Your task to perform on an android device: change notifications settings Image 0: 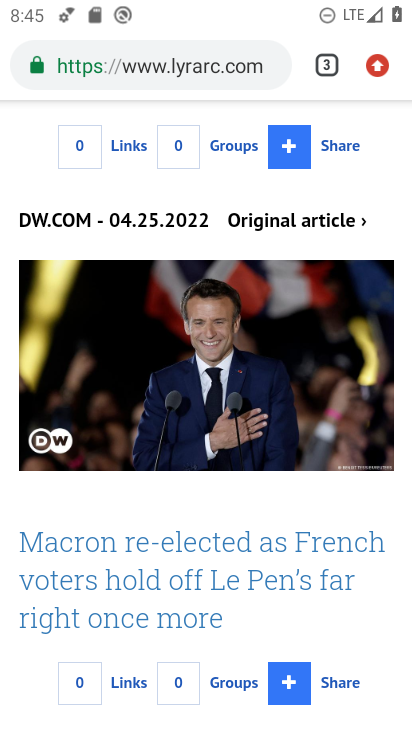
Step 0: press home button
Your task to perform on an android device: change notifications settings Image 1: 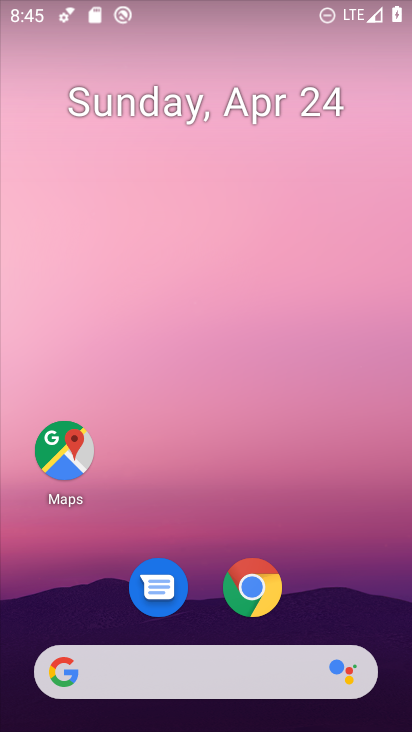
Step 1: drag from (345, 467) to (345, 158)
Your task to perform on an android device: change notifications settings Image 2: 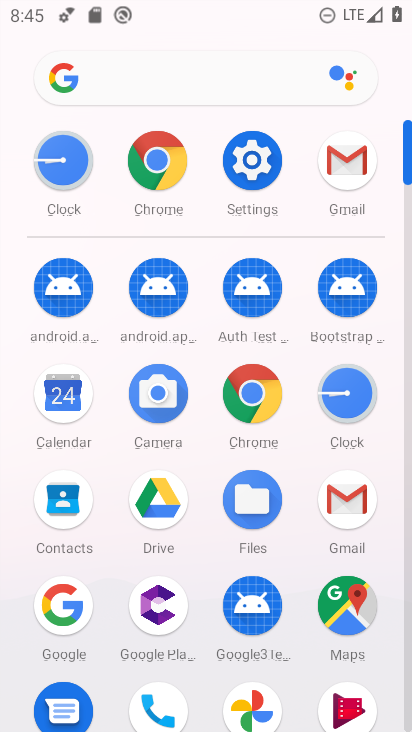
Step 2: click (259, 155)
Your task to perform on an android device: change notifications settings Image 3: 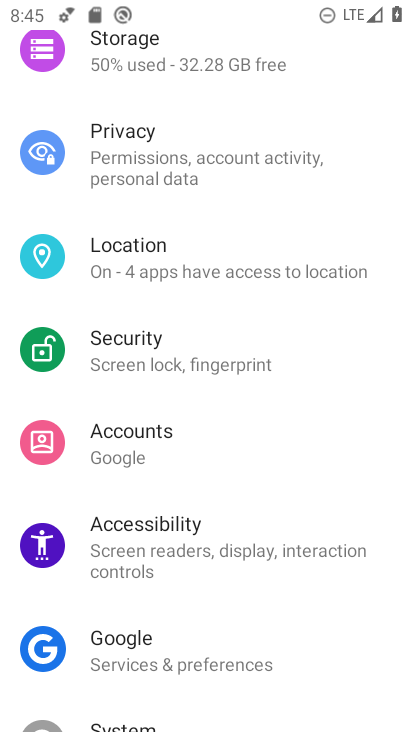
Step 3: drag from (232, 96) to (241, 481)
Your task to perform on an android device: change notifications settings Image 4: 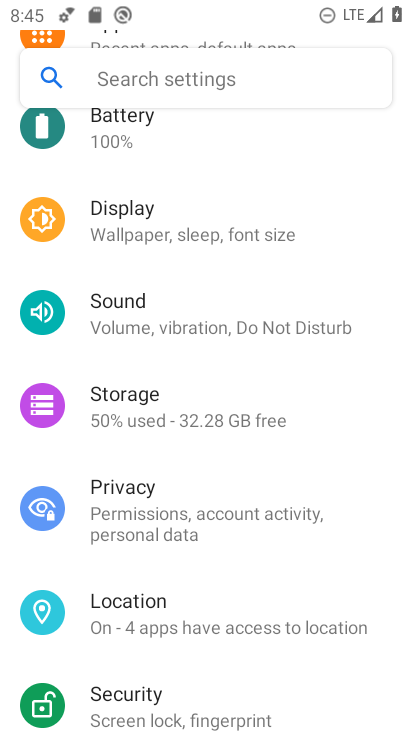
Step 4: drag from (249, 193) to (265, 508)
Your task to perform on an android device: change notifications settings Image 5: 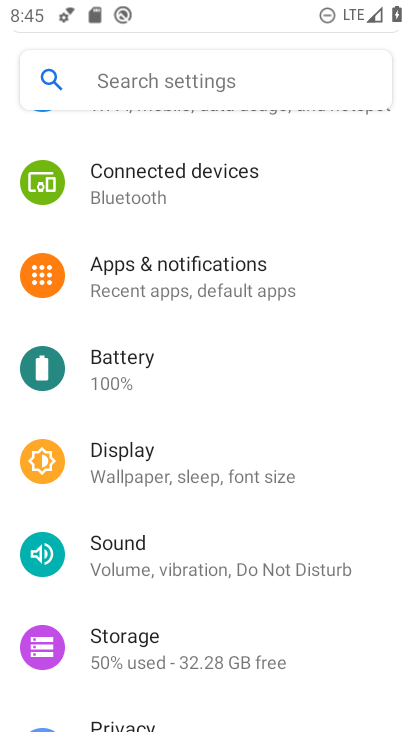
Step 5: click (204, 265)
Your task to perform on an android device: change notifications settings Image 6: 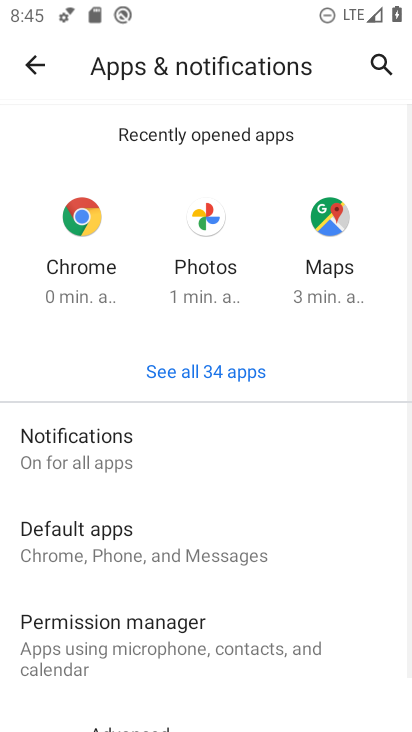
Step 6: click (120, 445)
Your task to perform on an android device: change notifications settings Image 7: 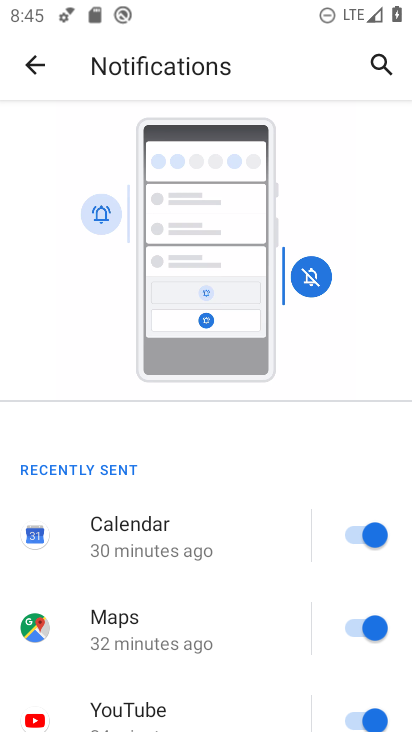
Step 7: click (356, 532)
Your task to perform on an android device: change notifications settings Image 8: 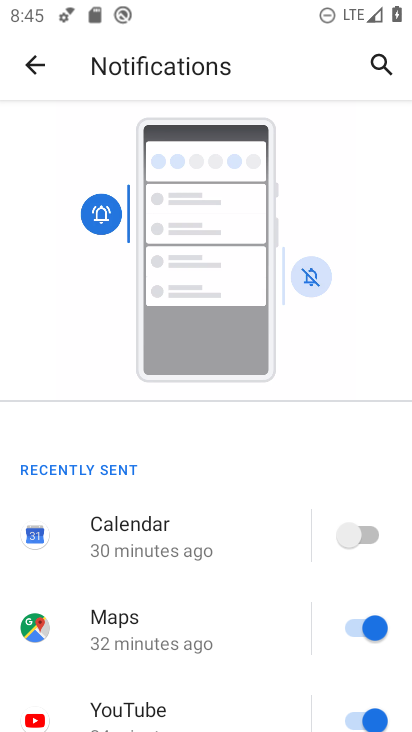
Step 8: click (357, 624)
Your task to perform on an android device: change notifications settings Image 9: 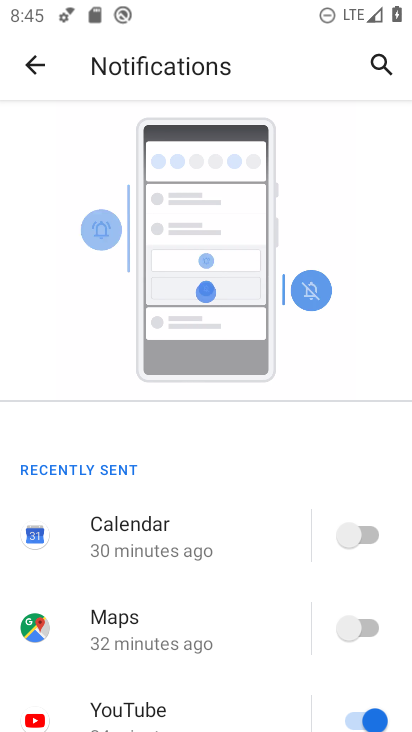
Step 9: task complete